Your task to perform on an android device: toggle improve location accuracy Image 0: 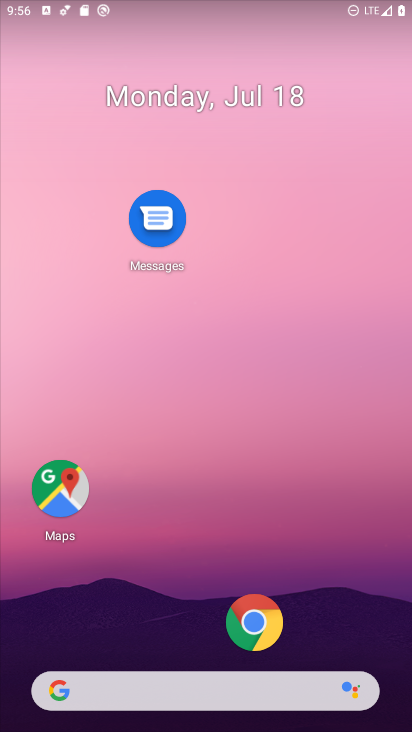
Step 0: press home button
Your task to perform on an android device: toggle improve location accuracy Image 1: 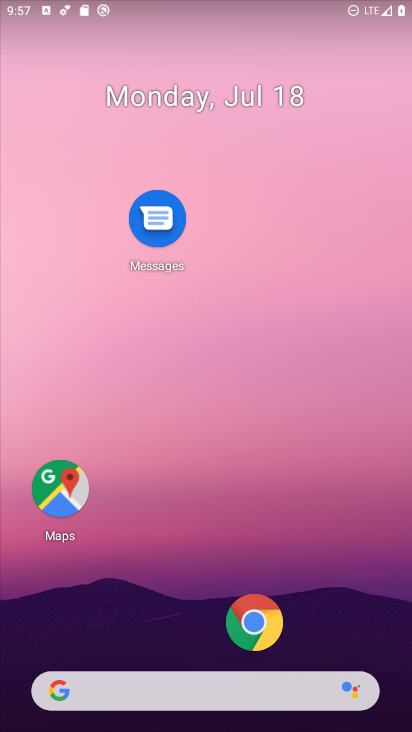
Step 1: drag from (270, 605) to (313, 0)
Your task to perform on an android device: toggle improve location accuracy Image 2: 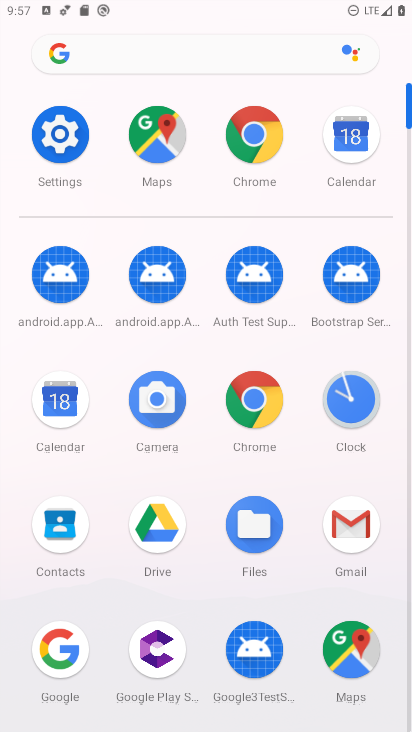
Step 2: click (69, 144)
Your task to perform on an android device: toggle improve location accuracy Image 3: 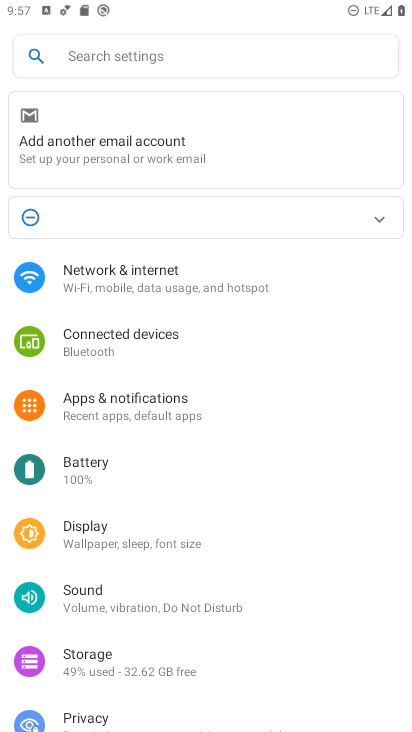
Step 3: drag from (244, 487) to (240, 228)
Your task to perform on an android device: toggle improve location accuracy Image 4: 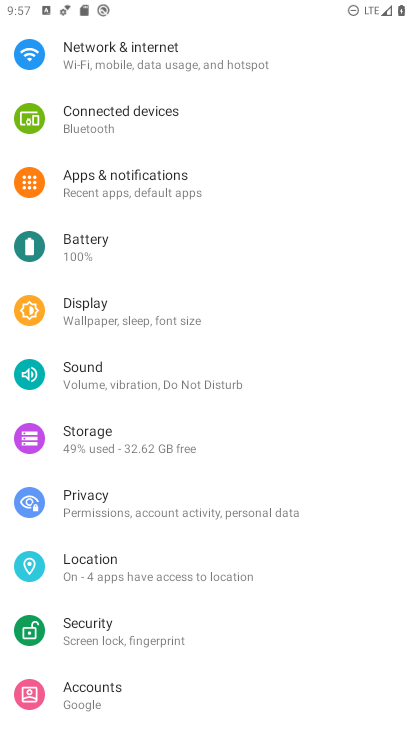
Step 4: click (125, 562)
Your task to perform on an android device: toggle improve location accuracy Image 5: 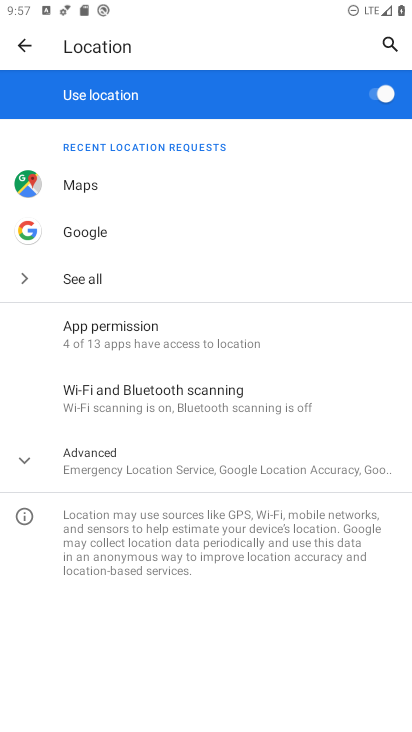
Step 5: click (89, 470)
Your task to perform on an android device: toggle improve location accuracy Image 6: 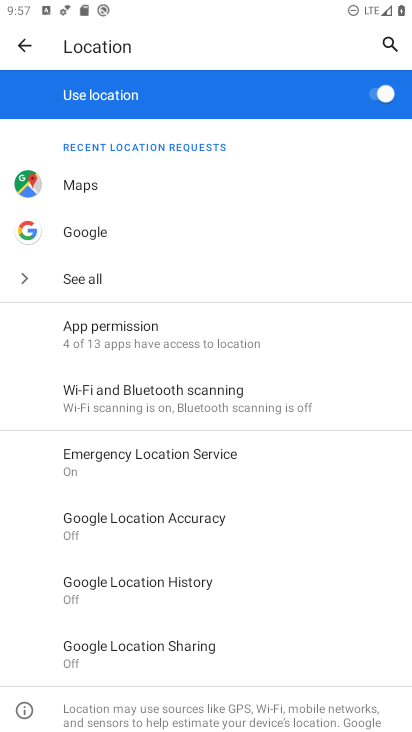
Step 6: click (190, 529)
Your task to perform on an android device: toggle improve location accuracy Image 7: 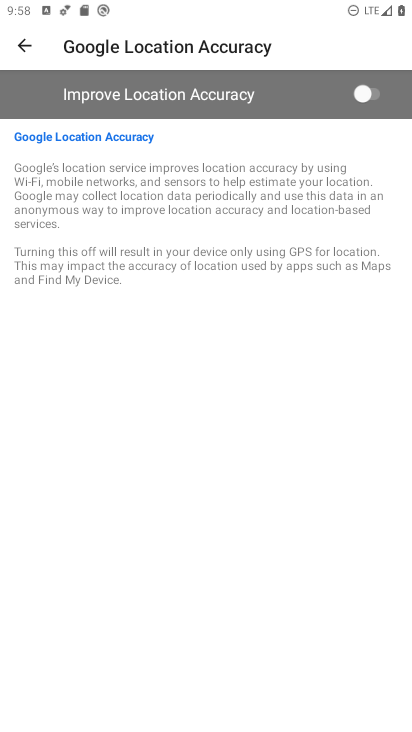
Step 7: click (374, 95)
Your task to perform on an android device: toggle improve location accuracy Image 8: 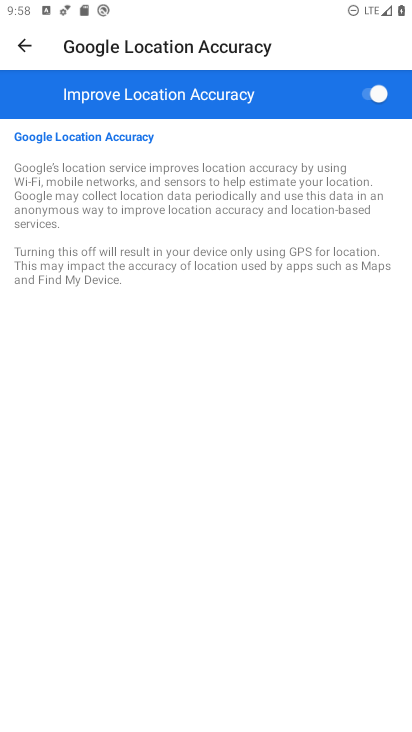
Step 8: task complete